Your task to perform on an android device: make emails show in primary in the gmail app Image 0: 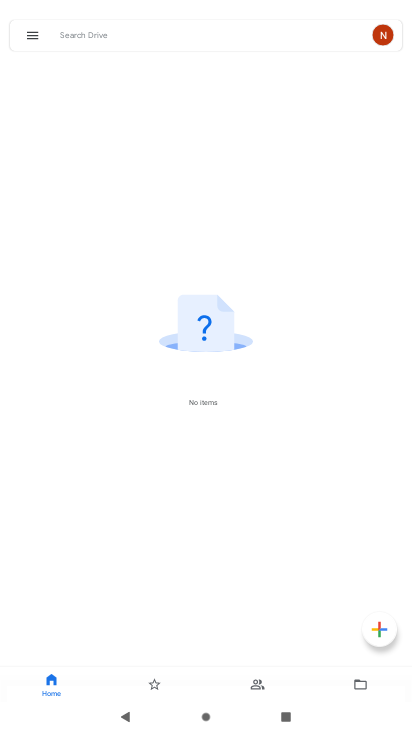
Step 0: press home button
Your task to perform on an android device: make emails show in primary in the gmail app Image 1: 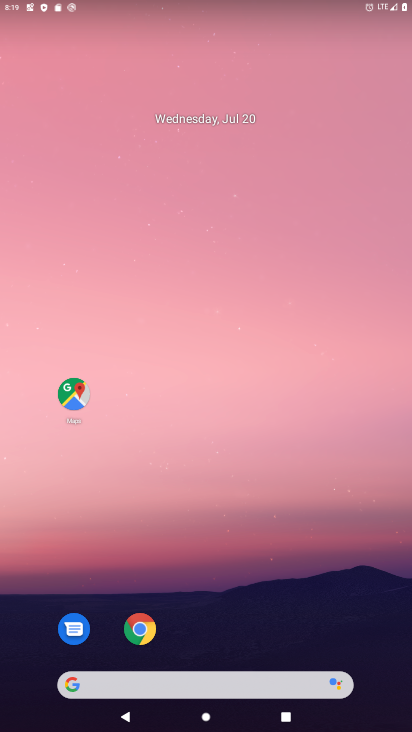
Step 1: click (156, 63)
Your task to perform on an android device: make emails show in primary in the gmail app Image 2: 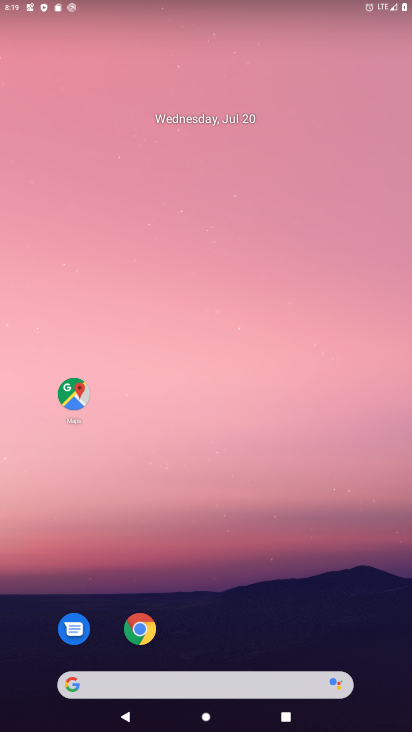
Step 2: drag from (204, 640) to (212, 31)
Your task to perform on an android device: make emails show in primary in the gmail app Image 3: 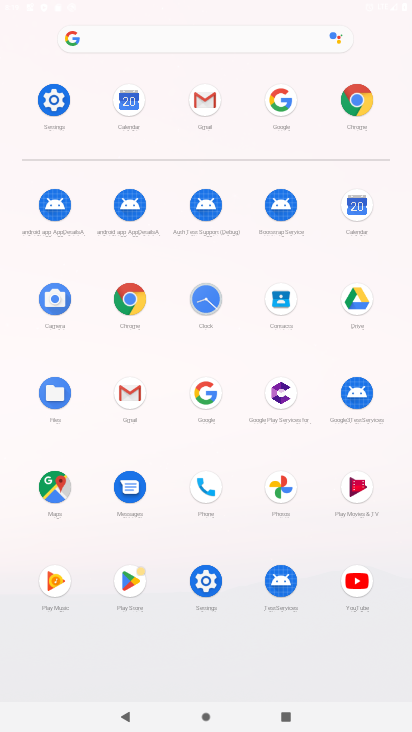
Step 3: click (207, 118)
Your task to perform on an android device: make emails show in primary in the gmail app Image 4: 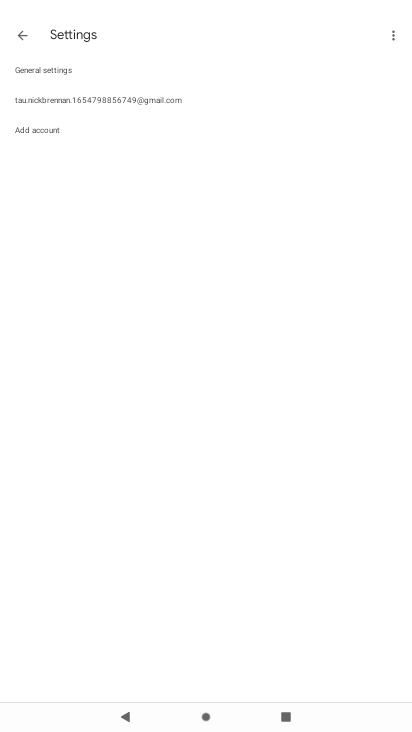
Step 4: click (130, 96)
Your task to perform on an android device: make emails show in primary in the gmail app Image 5: 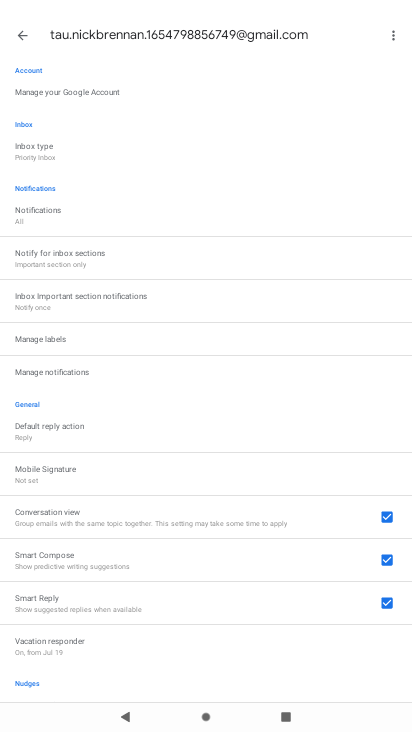
Step 5: click (31, 153)
Your task to perform on an android device: make emails show in primary in the gmail app Image 6: 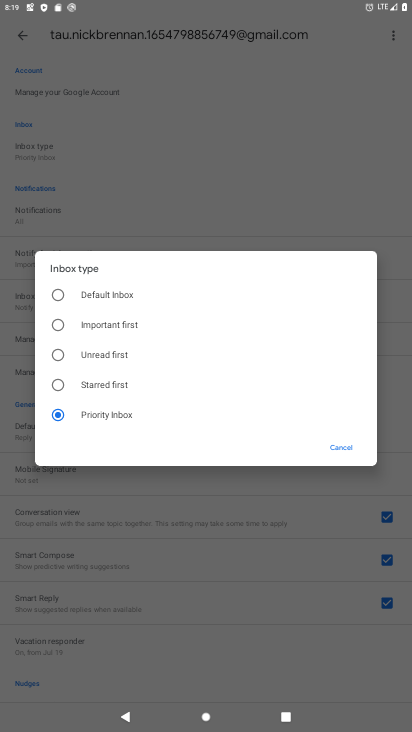
Step 6: click (342, 447)
Your task to perform on an android device: make emails show in primary in the gmail app Image 7: 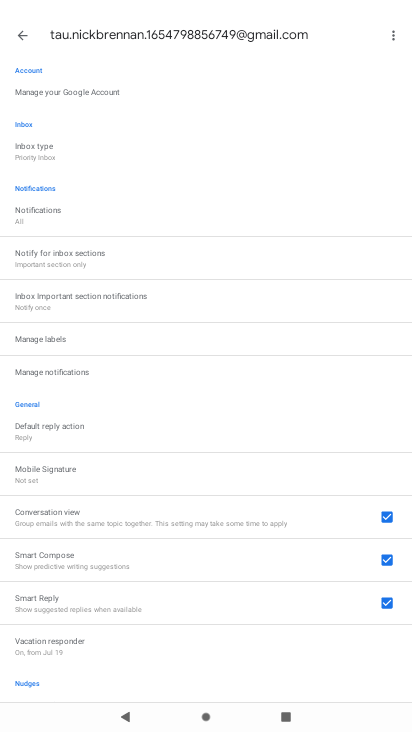
Step 7: task complete